Your task to perform on an android device: open app "NewsBreak: Local News & Alerts" (install if not already installed) and go to login screen Image 0: 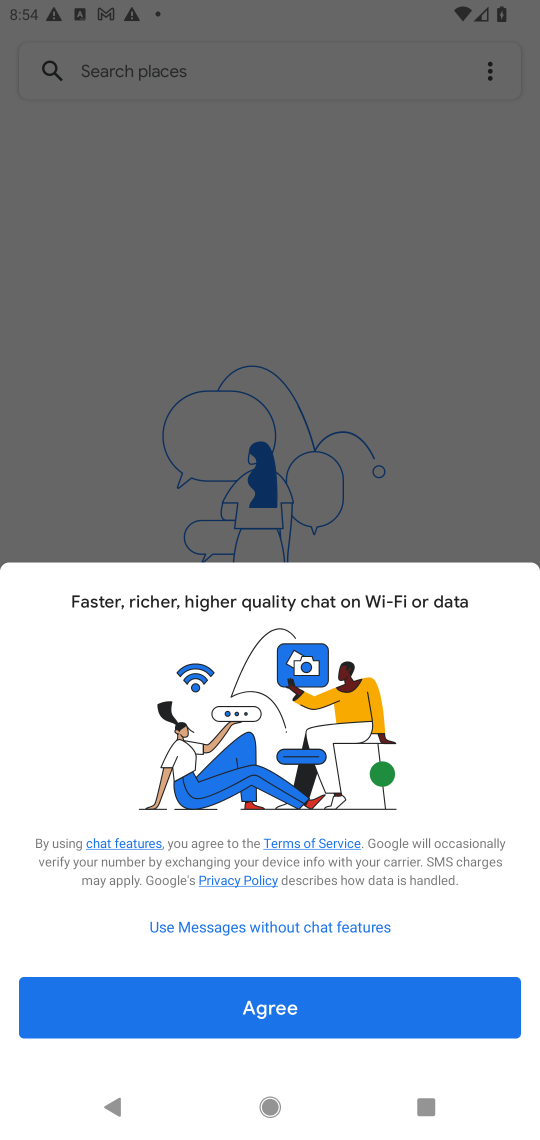
Step 0: press back button
Your task to perform on an android device: open app "NewsBreak: Local News & Alerts" (install if not already installed) and go to login screen Image 1: 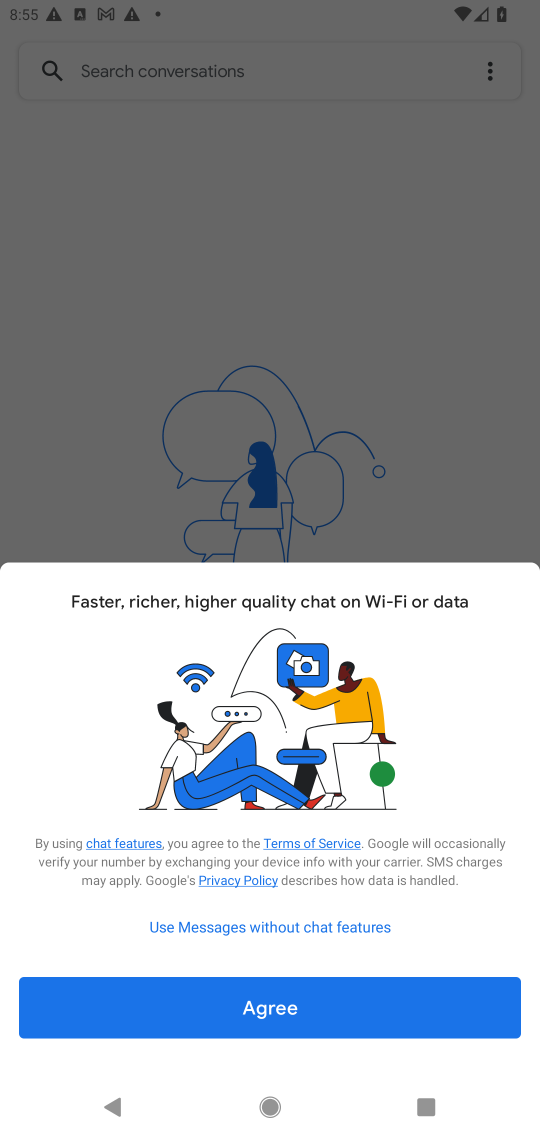
Step 1: press back button
Your task to perform on an android device: open app "NewsBreak: Local News & Alerts" (install if not already installed) and go to login screen Image 2: 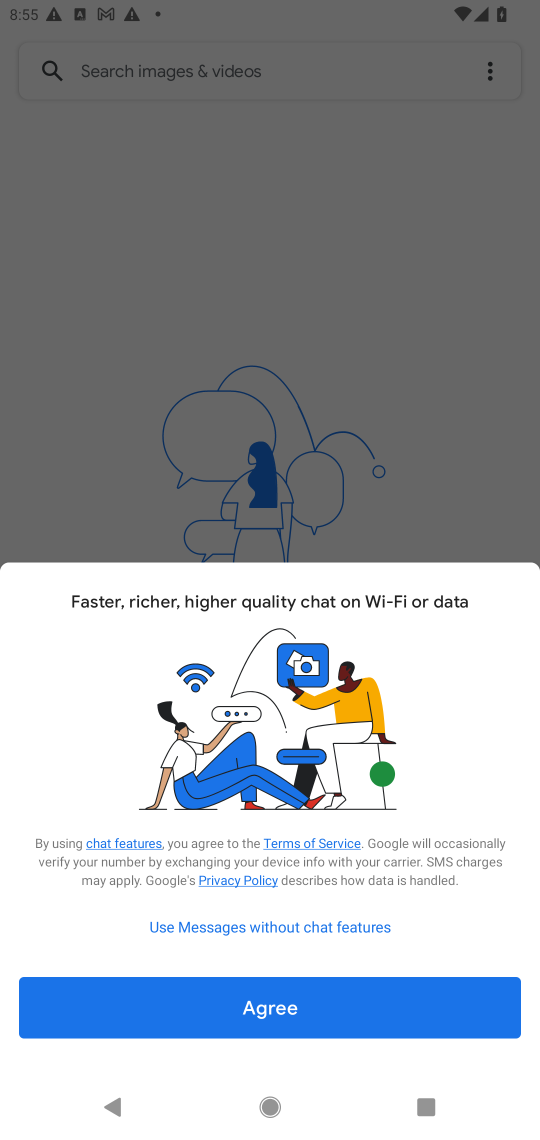
Step 2: press back button
Your task to perform on an android device: open app "NewsBreak: Local News & Alerts" (install if not already installed) and go to login screen Image 3: 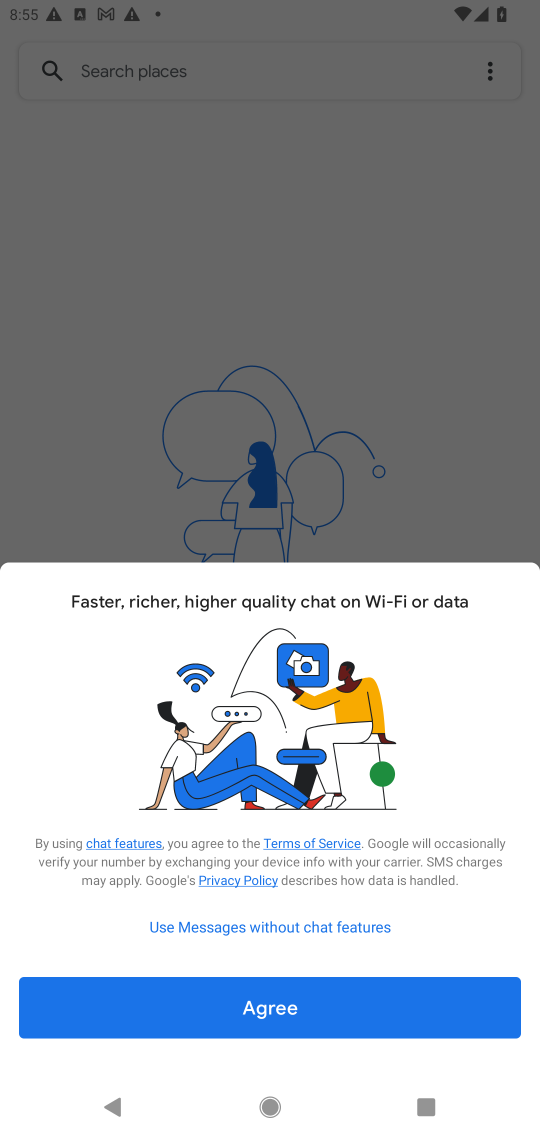
Step 3: press home button
Your task to perform on an android device: open app "NewsBreak: Local News & Alerts" (install if not already installed) and go to login screen Image 4: 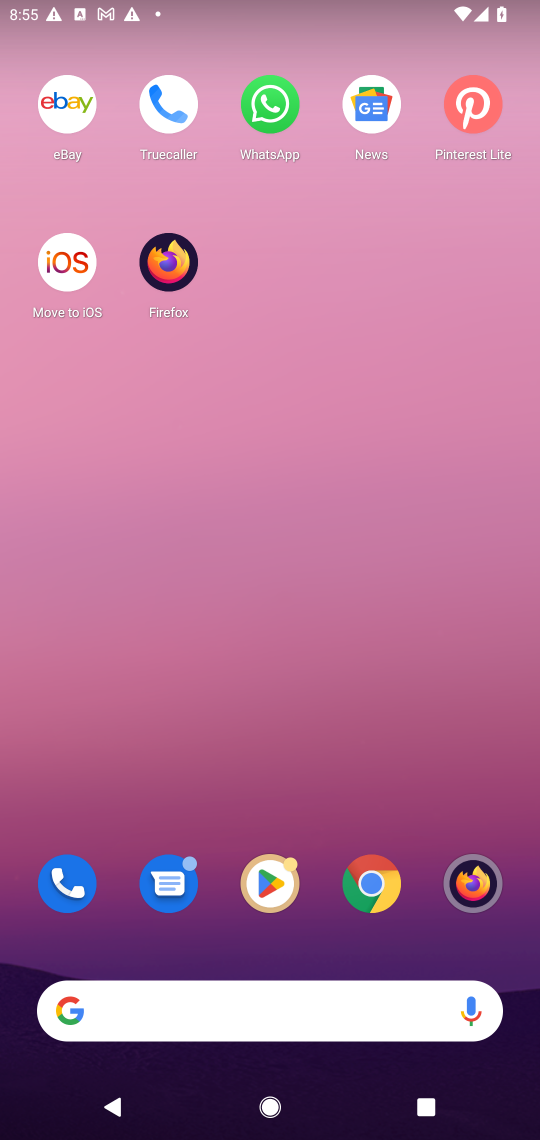
Step 4: click (270, 903)
Your task to perform on an android device: open app "NewsBreak: Local News & Alerts" (install if not already installed) and go to login screen Image 5: 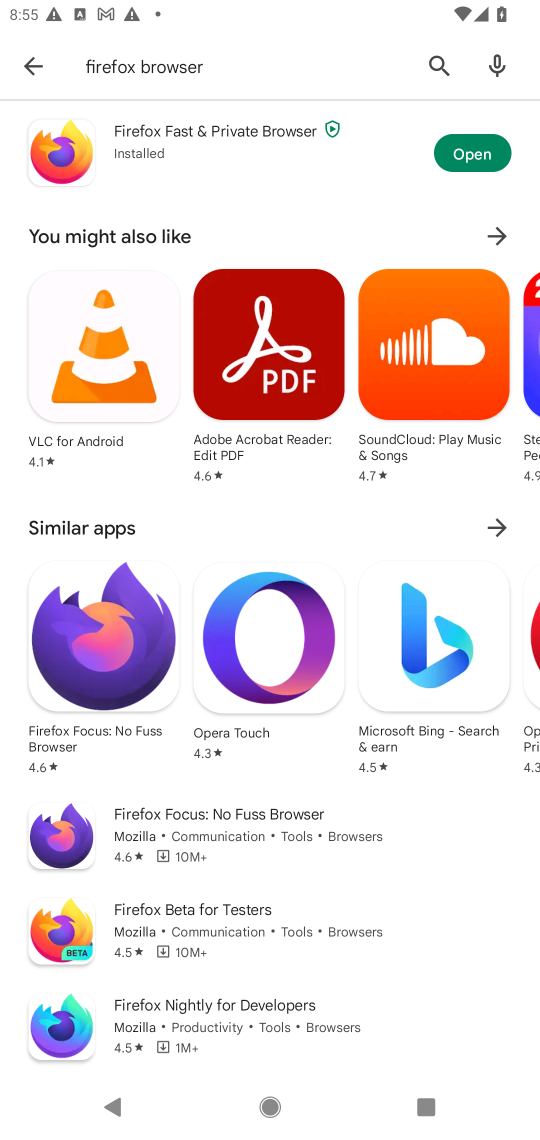
Step 5: click (429, 78)
Your task to perform on an android device: open app "NewsBreak: Local News & Alerts" (install if not already installed) and go to login screen Image 6: 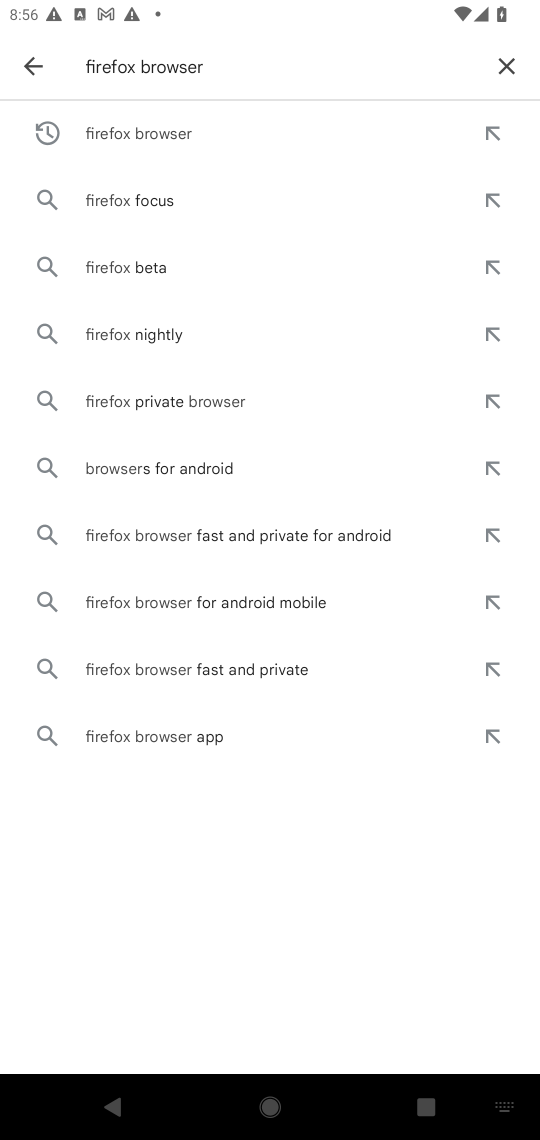
Step 6: click (496, 66)
Your task to perform on an android device: open app "NewsBreak: Local News & Alerts" (install if not already installed) and go to login screen Image 7: 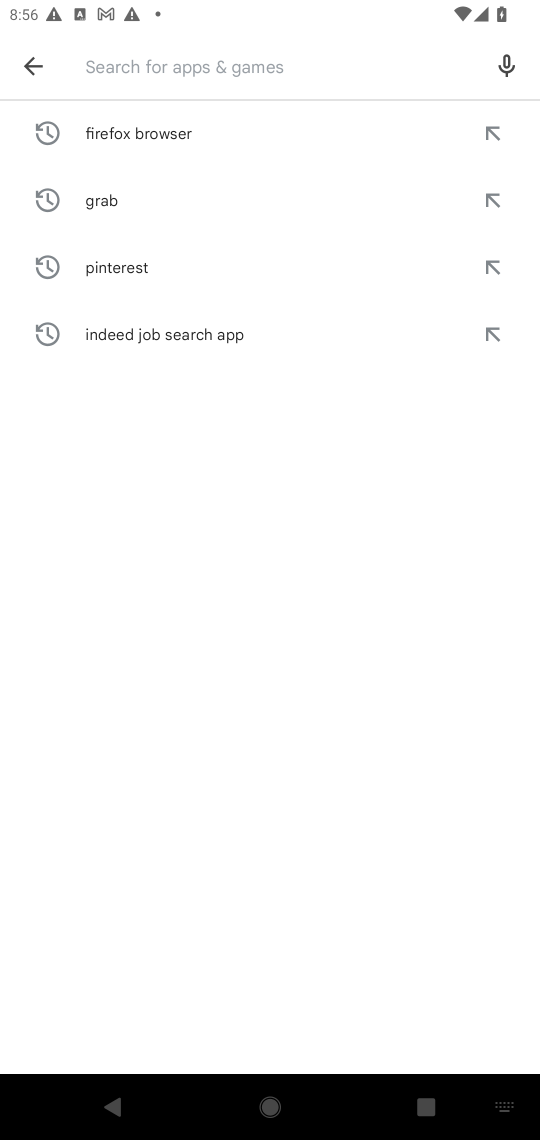
Step 7: type "NewsBreak: Local News & Alerts"
Your task to perform on an android device: open app "NewsBreak: Local News & Alerts" (install if not already installed) and go to login screen Image 8: 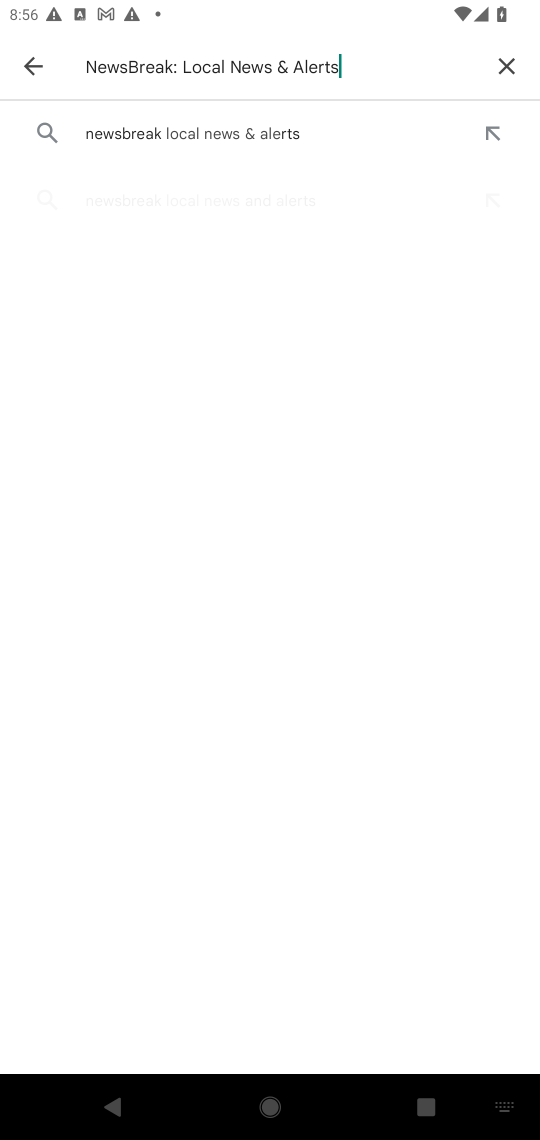
Step 8: type ""
Your task to perform on an android device: open app "NewsBreak: Local News & Alerts" (install if not already installed) and go to login screen Image 9: 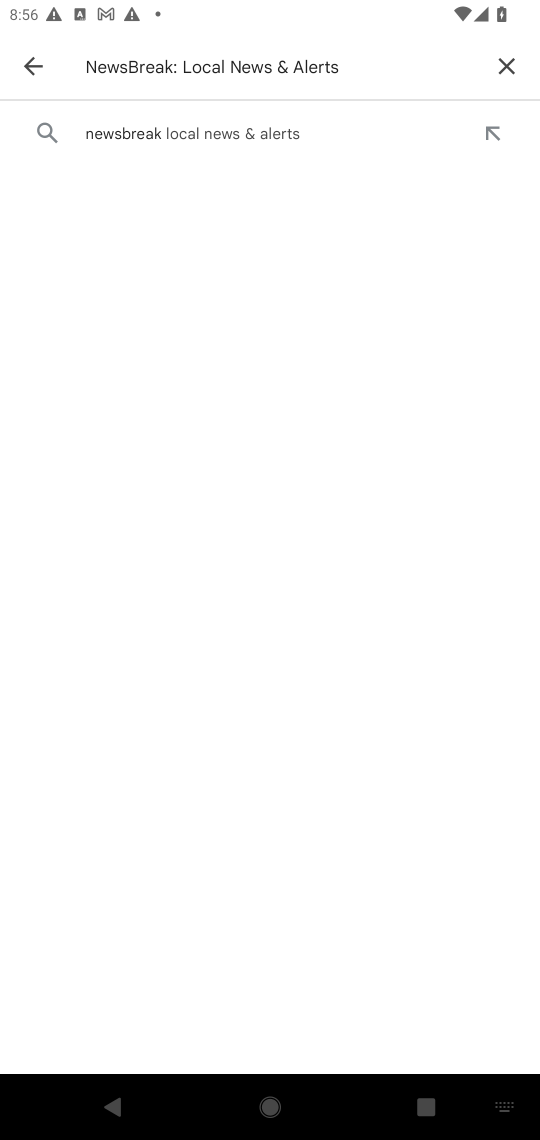
Step 9: click (259, 133)
Your task to perform on an android device: open app "NewsBreak: Local News & Alerts" (install if not already installed) and go to login screen Image 10: 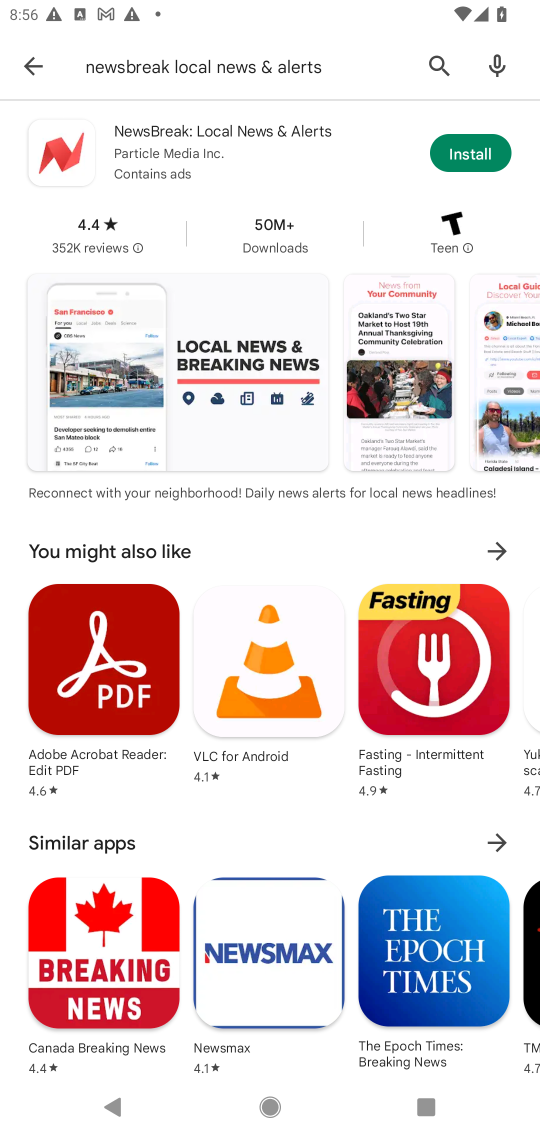
Step 10: click (471, 152)
Your task to perform on an android device: open app "NewsBreak: Local News & Alerts" (install if not already installed) and go to login screen Image 11: 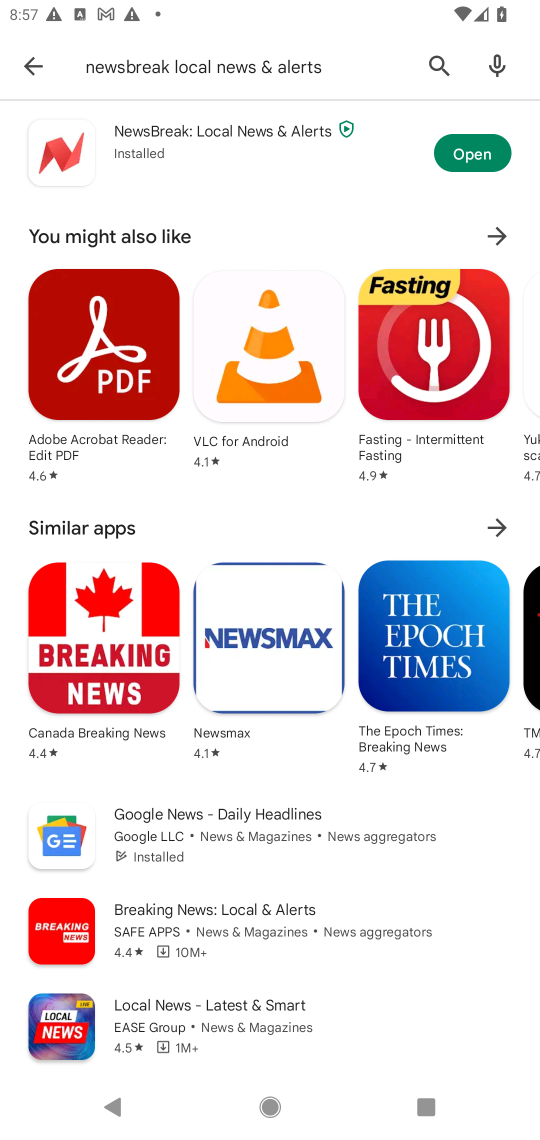
Step 11: click (474, 154)
Your task to perform on an android device: open app "NewsBreak: Local News & Alerts" (install if not already installed) and go to login screen Image 12: 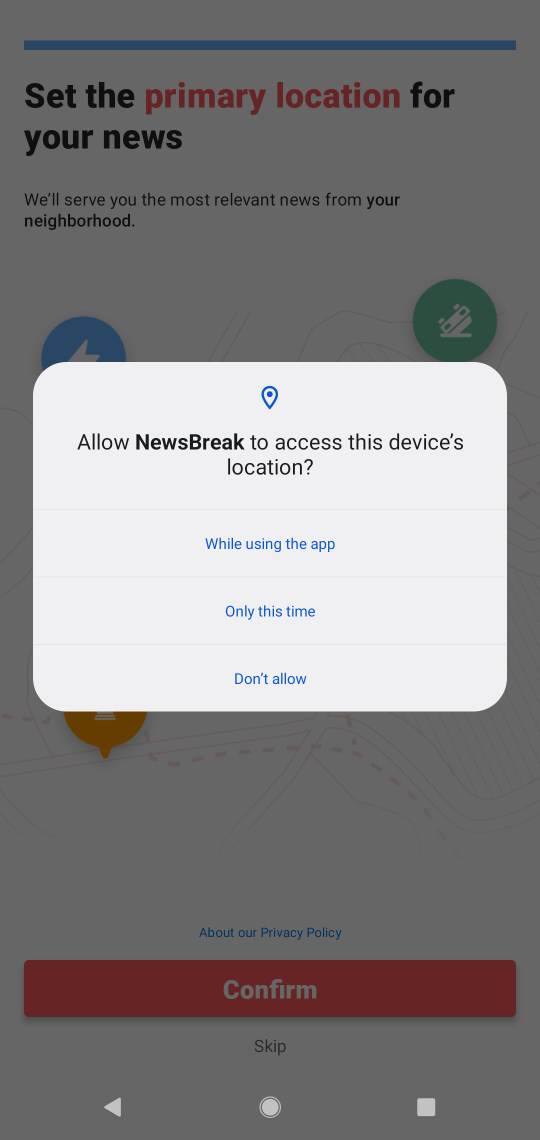
Step 12: task complete